Your task to perform on an android device: turn on airplane mode Image 0: 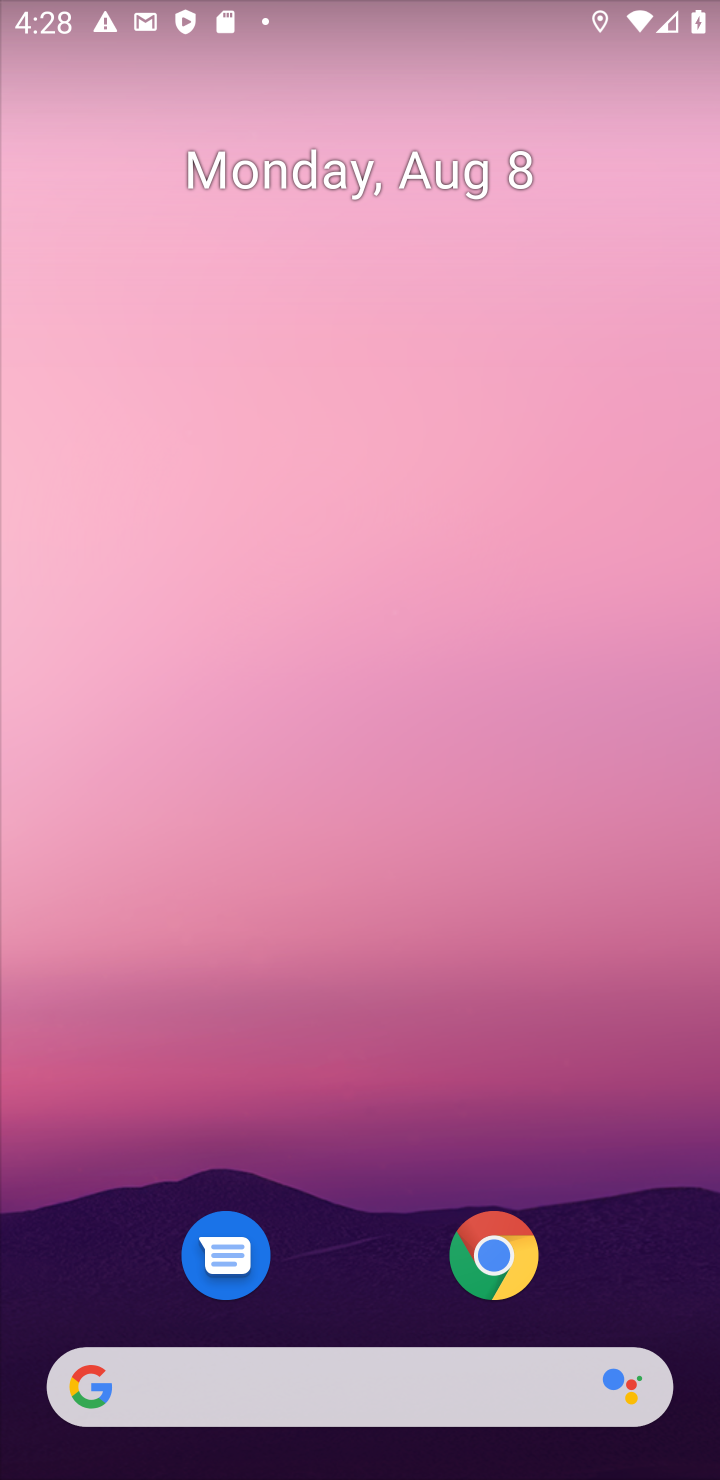
Step 0: drag from (406, 1321) to (577, 264)
Your task to perform on an android device: turn on airplane mode Image 1: 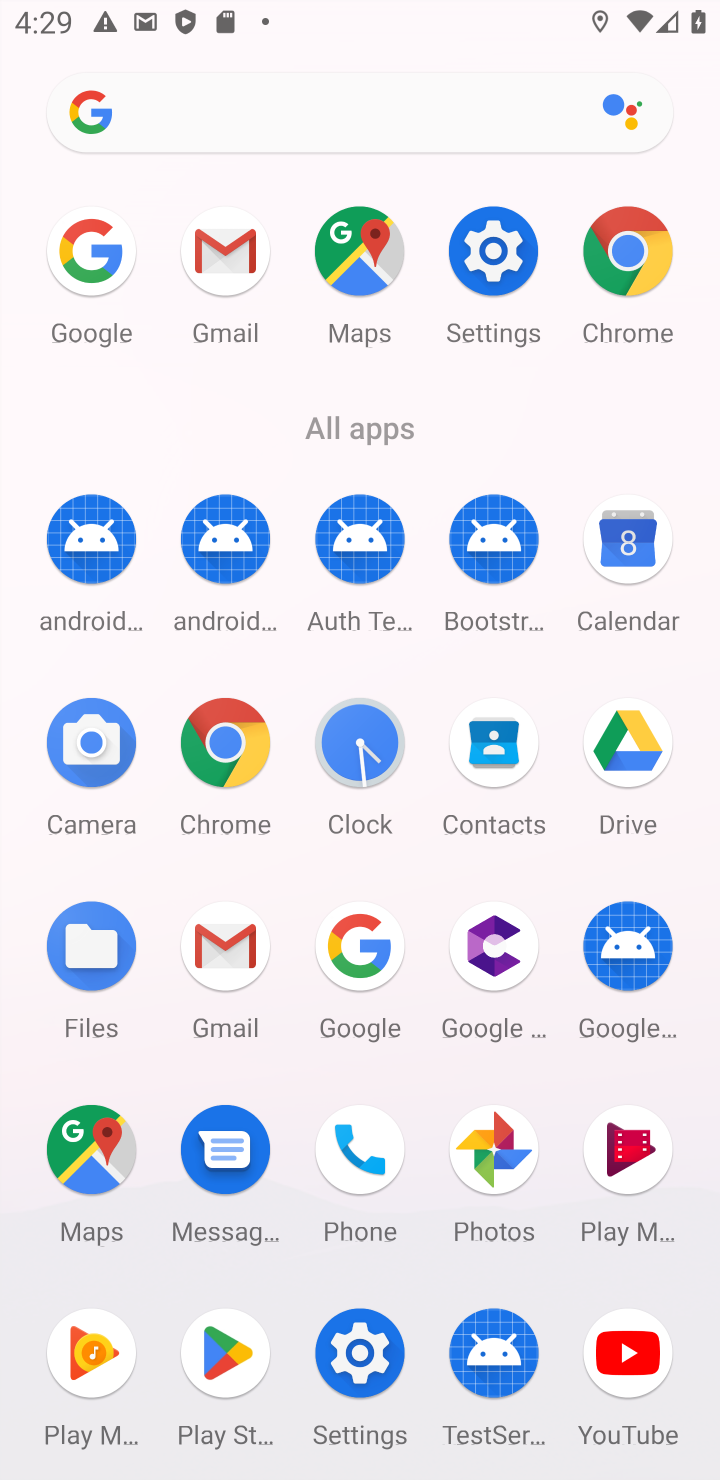
Step 1: click (493, 249)
Your task to perform on an android device: turn on airplane mode Image 2: 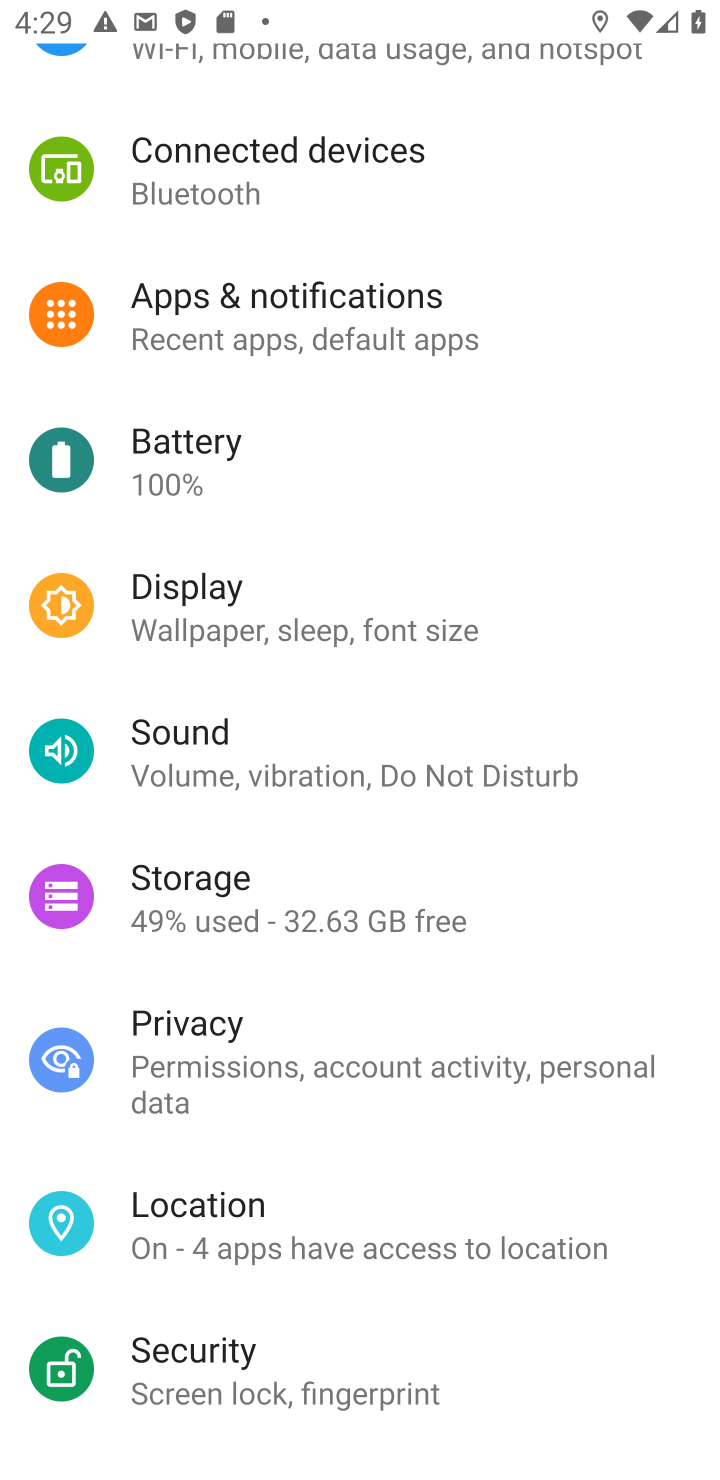
Step 2: drag from (340, 204) to (219, 708)
Your task to perform on an android device: turn on airplane mode Image 3: 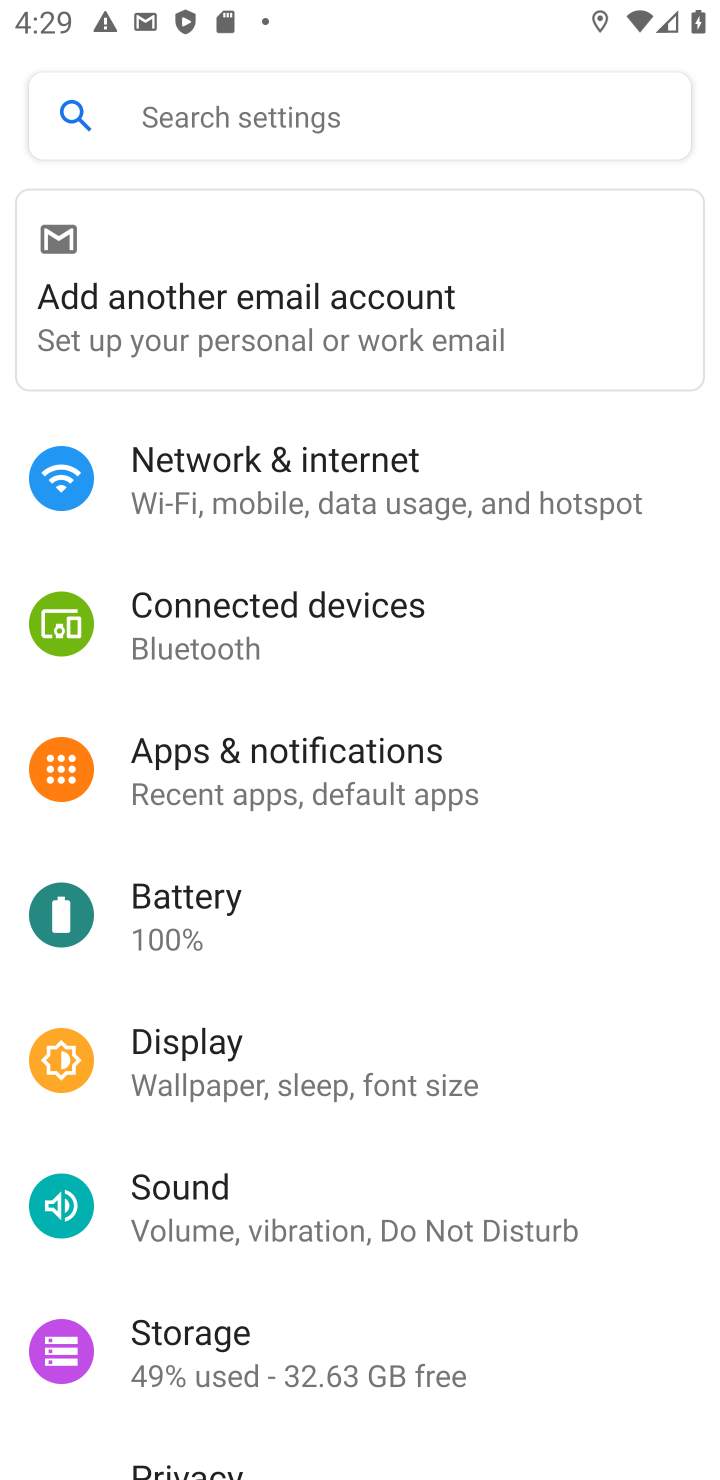
Step 3: click (237, 508)
Your task to perform on an android device: turn on airplane mode Image 4: 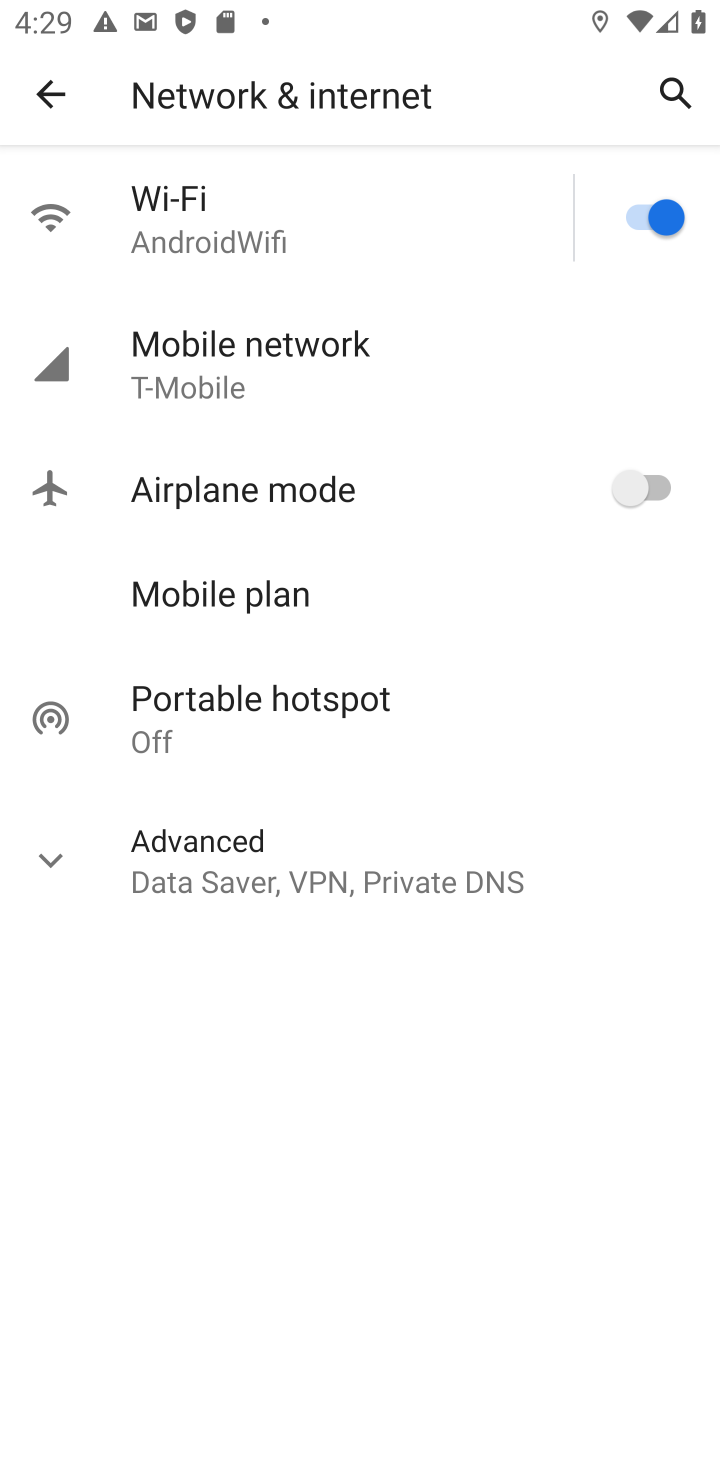
Step 4: click (622, 498)
Your task to perform on an android device: turn on airplane mode Image 5: 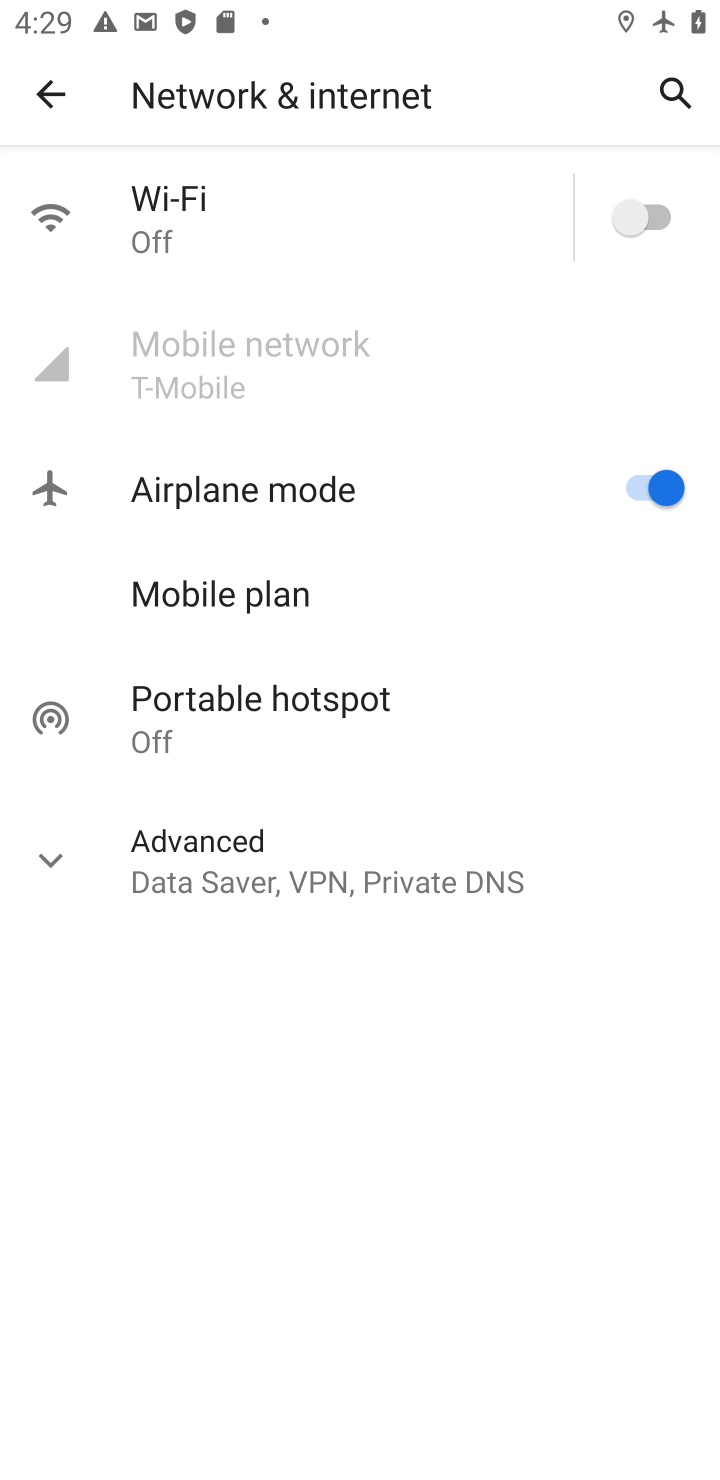
Step 5: task complete